Your task to perform on an android device: toggle priority inbox in the gmail app Image 0: 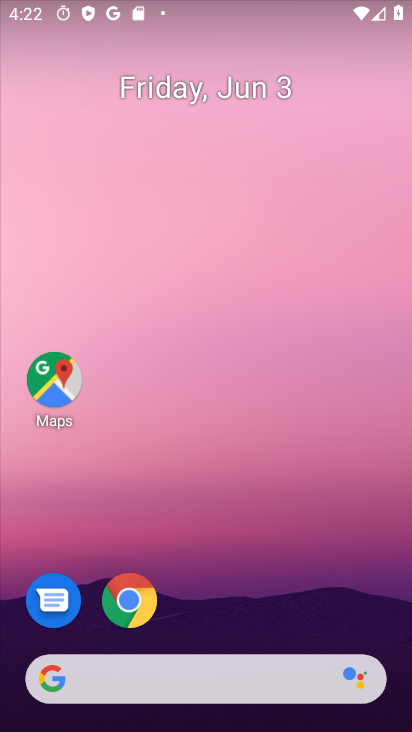
Step 0: drag from (391, 696) to (377, 129)
Your task to perform on an android device: toggle priority inbox in the gmail app Image 1: 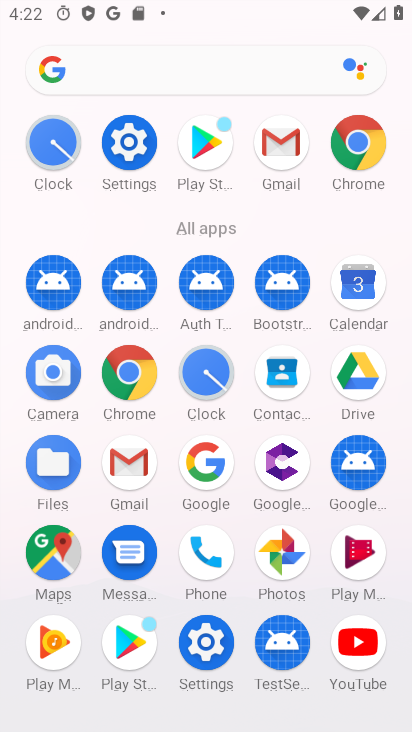
Step 1: click (130, 456)
Your task to perform on an android device: toggle priority inbox in the gmail app Image 2: 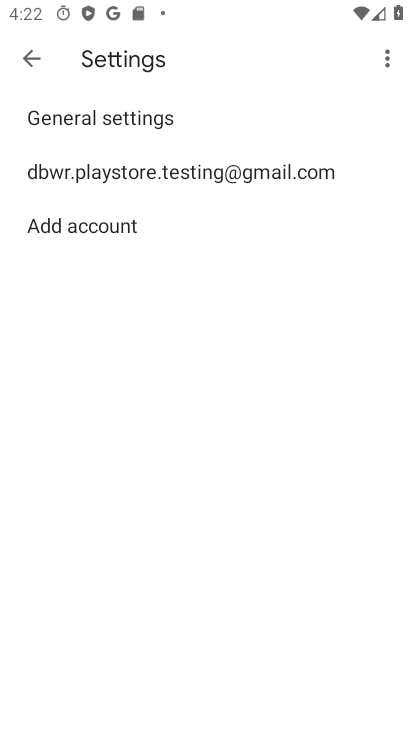
Step 2: click (107, 161)
Your task to perform on an android device: toggle priority inbox in the gmail app Image 3: 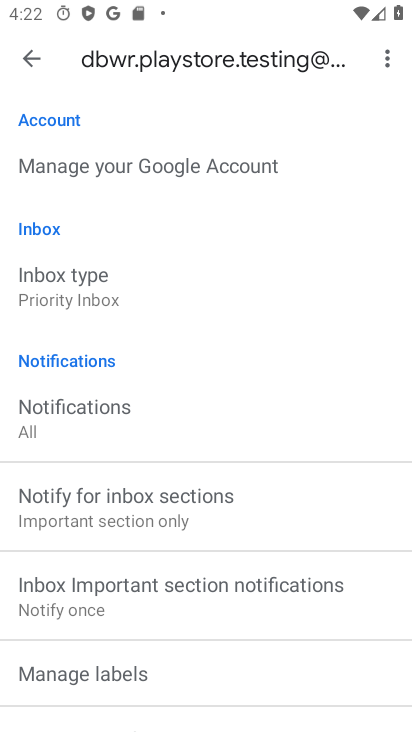
Step 3: click (80, 286)
Your task to perform on an android device: toggle priority inbox in the gmail app Image 4: 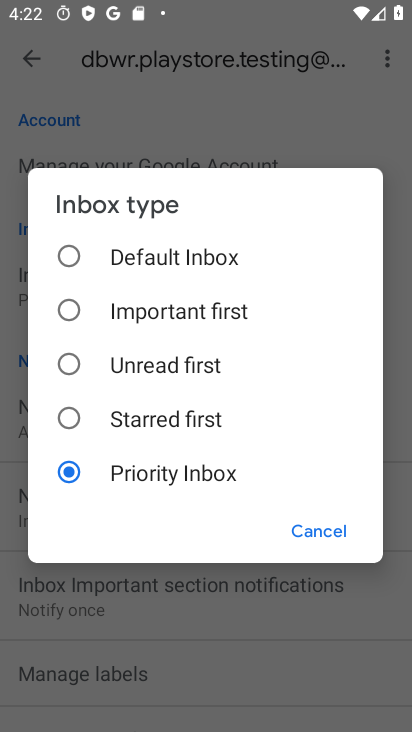
Step 4: click (65, 257)
Your task to perform on an android device: toggle priority inbox in the gmail app Image 5: 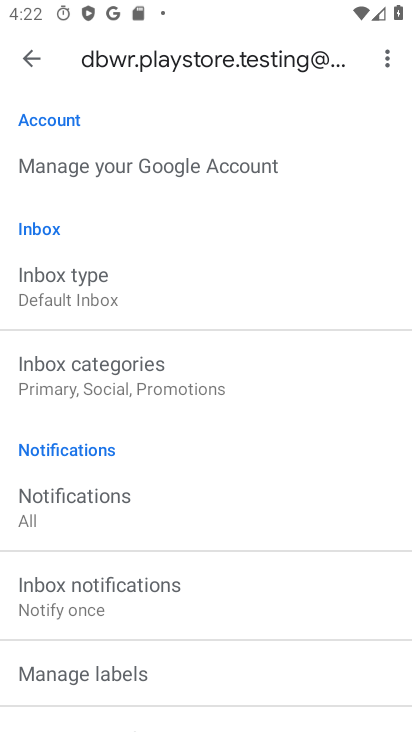
Step 5: task complete